Your task to perform on an android device: turn pop-ups off in chrome Image 0: 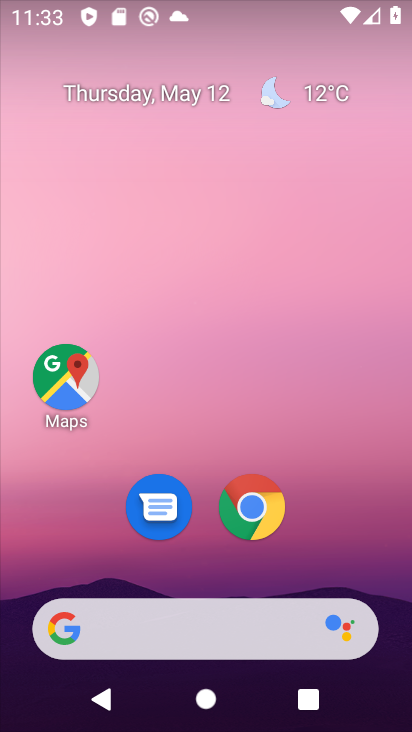
Step 0: click (244, 501)
Your task to perform on an android device: turn pop-ups off in chrome Image 1: 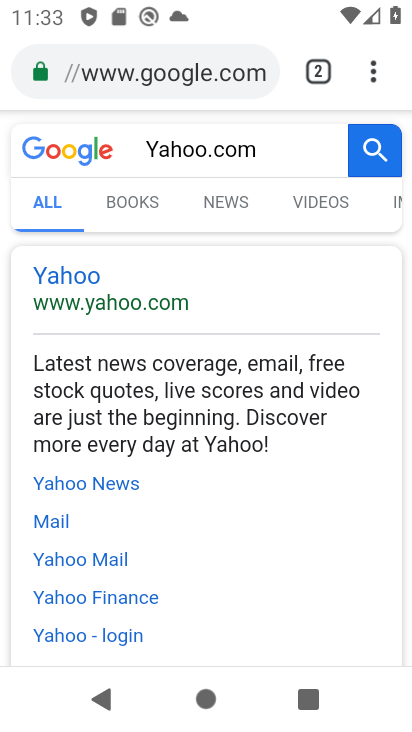
Step 1: click (371, 73)
Your task to perform on an android device: turn pop-ups off in chrome Image 2: 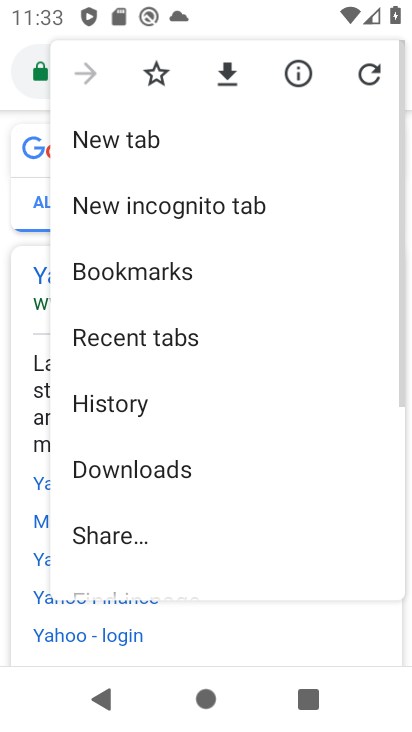
Step 2: drag from (142, 505) to (180, 238)
Your task to perform on an android device: turn pop-ups off in chrome Image 3: 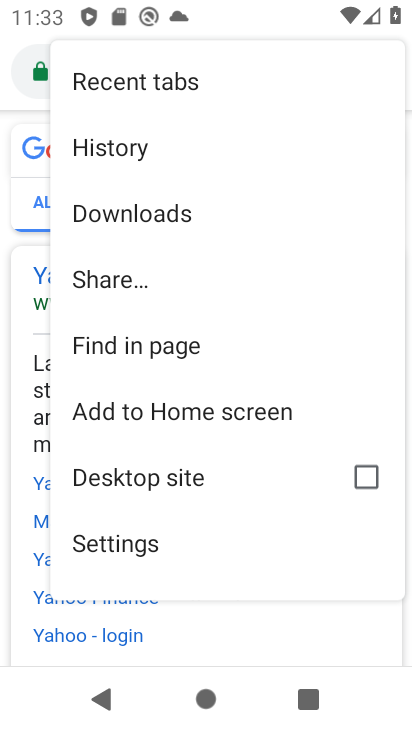
Step 3: drag from (140, 494) to (181, 236)
Your task to perform on an android device: turn pop-ups off in chrome Image 4: 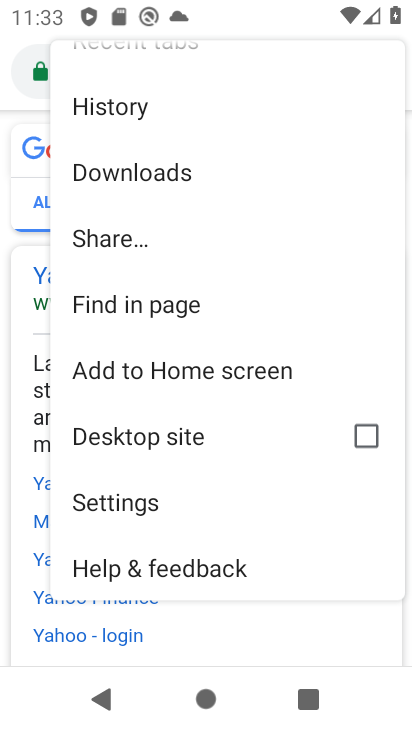
Step 4: click (129, 503)
Your task to perform on an android device: turn pop-ups off in chrome Image 5: 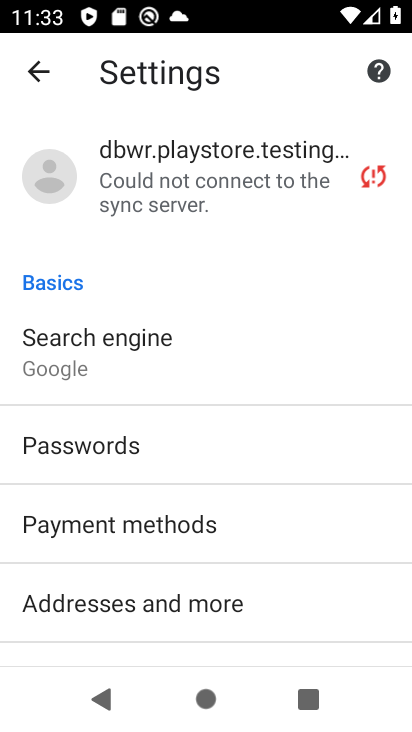
Step 5: drag from (139, 545) to (187, 250)
Your task to perform on an android device: turn pop-ups off in chrome Image 6: 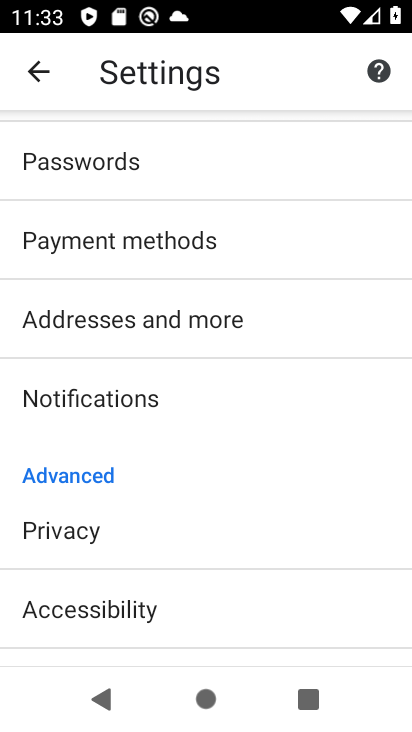
Step 6: drag from (159, 493) to (202, 202)
Your task to perform on an android device: turn pop-ups off in chrome Image 7: 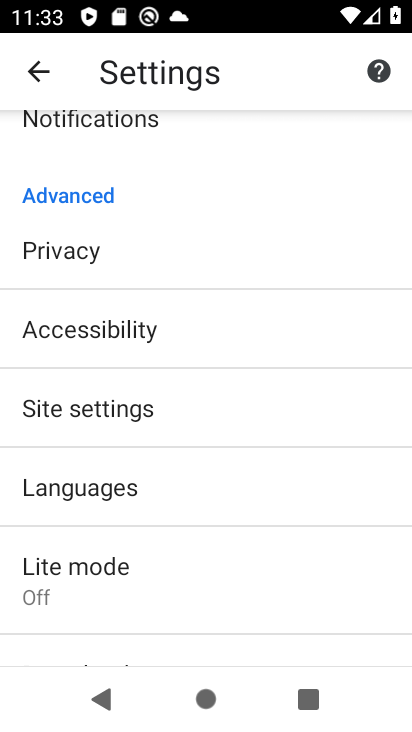
Step 7: click (115, 413)
Your task to perform on an android device: turn pop-ups off in chrome Image 8: 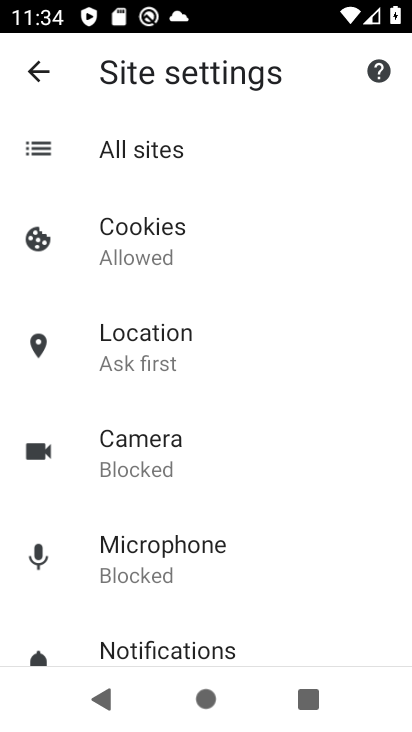
Step 8: drag from (155, 550) to (259, 153)
Your task to perform on an android device: turn pop-ups off in chrome Image 9: 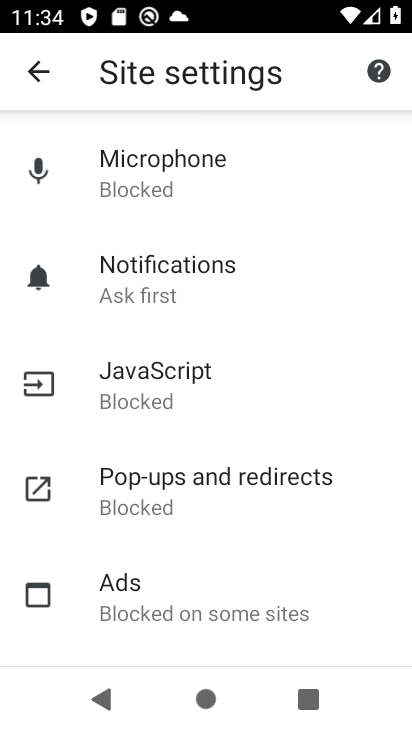
Step 9: click (185, 503)
Your task to perform on an android device: turn pop-ups off in chrome Image 10: 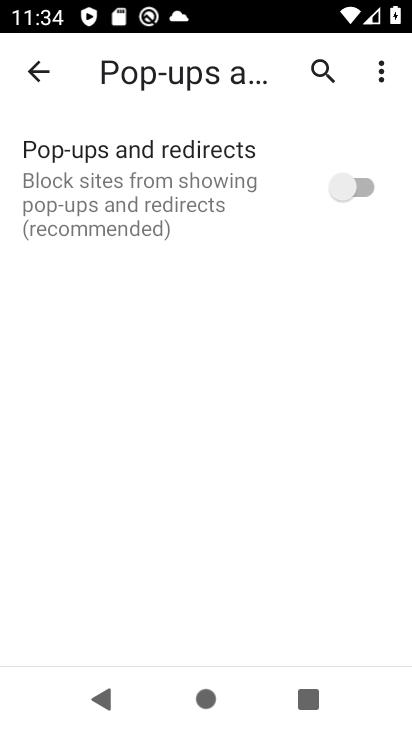
Step 10: task complete